Your task to perform on an android device: What's the weather today? Image 0: 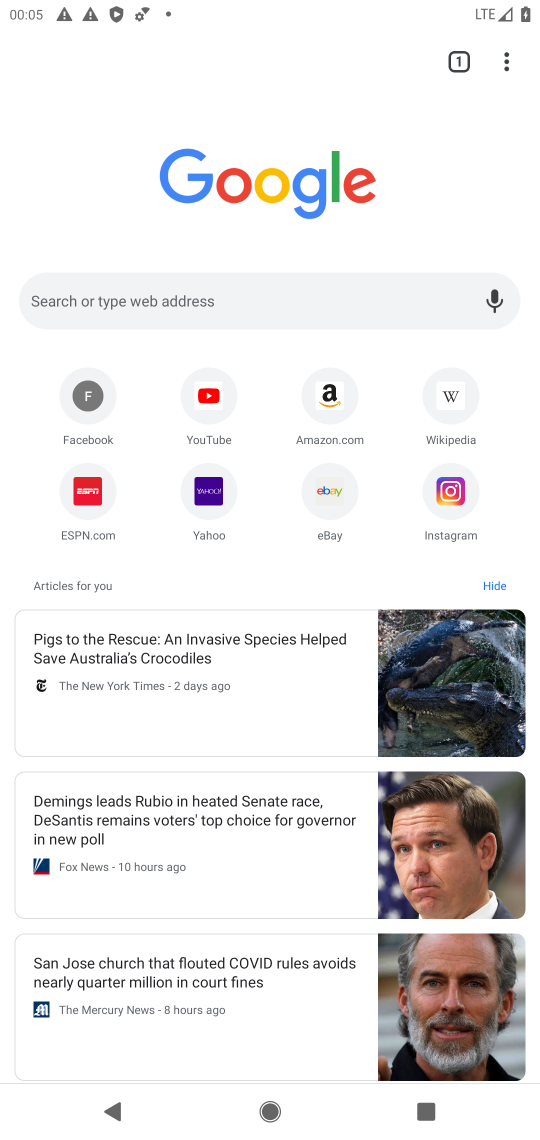
Step 0: press home button
Your task to perform on an android device: What's the weather today? Image 1: 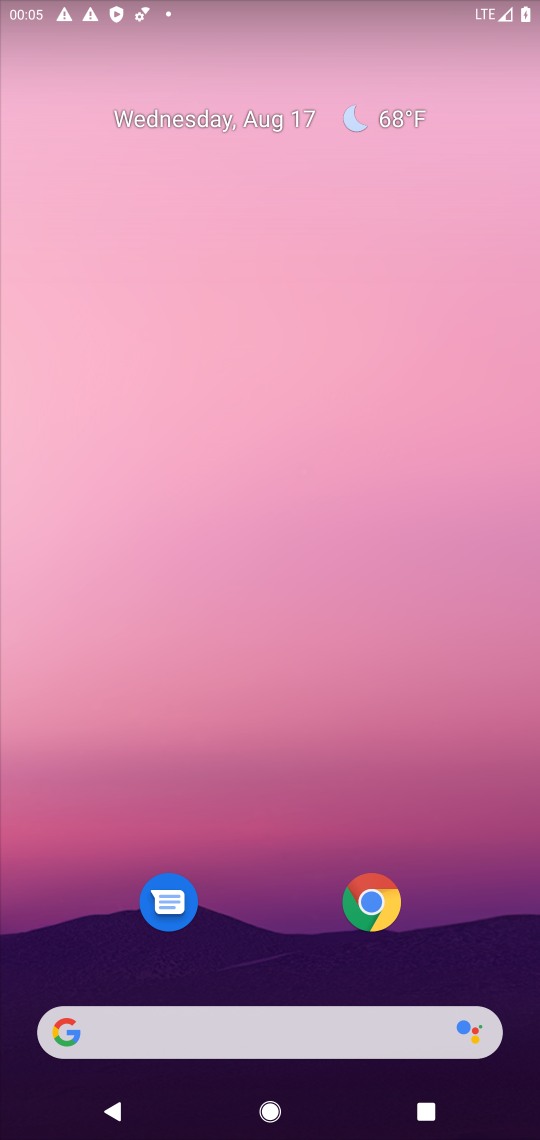
Step 1: click (253, 1028)
Your task to perform on an android device: What's the weather today? Image 2: 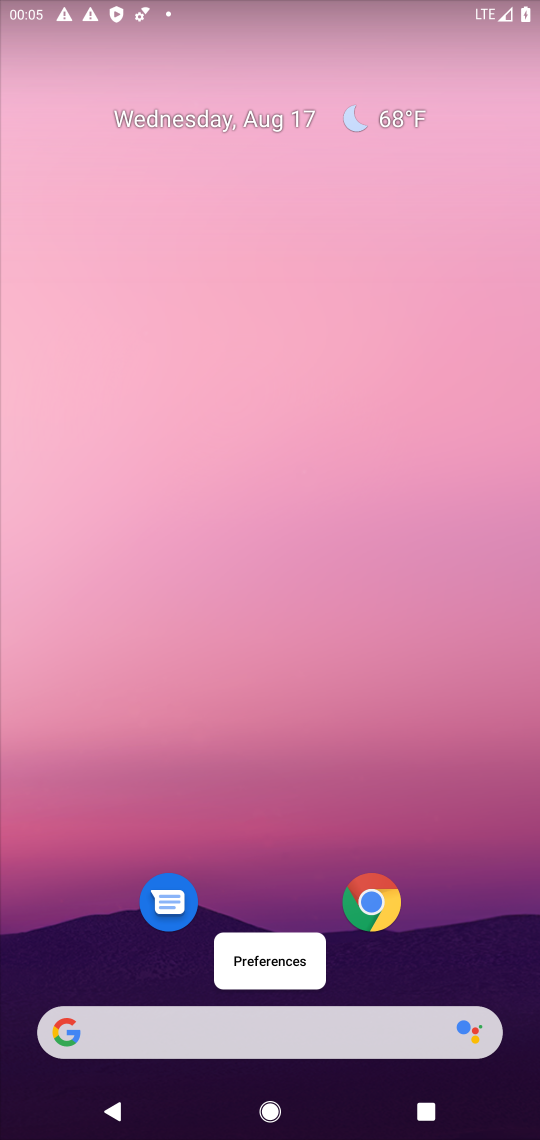
Step 2: click (243, 1027)
Your task to perform on an android device: What's the weather today? Image 3: 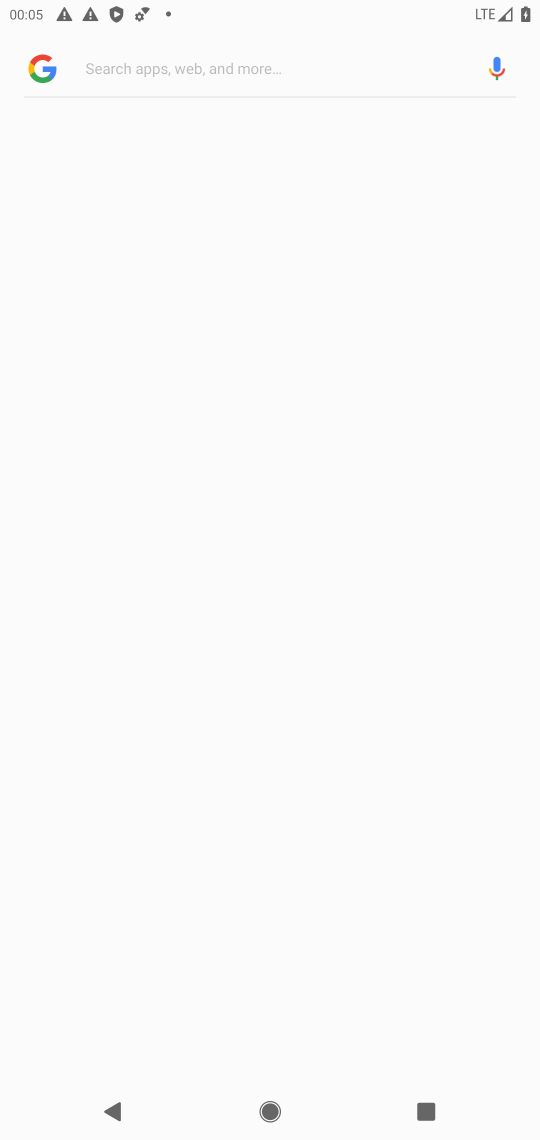
Step 3: click (243, 1027)
Your task to perform on an android device: What's the weather today? Image 4: 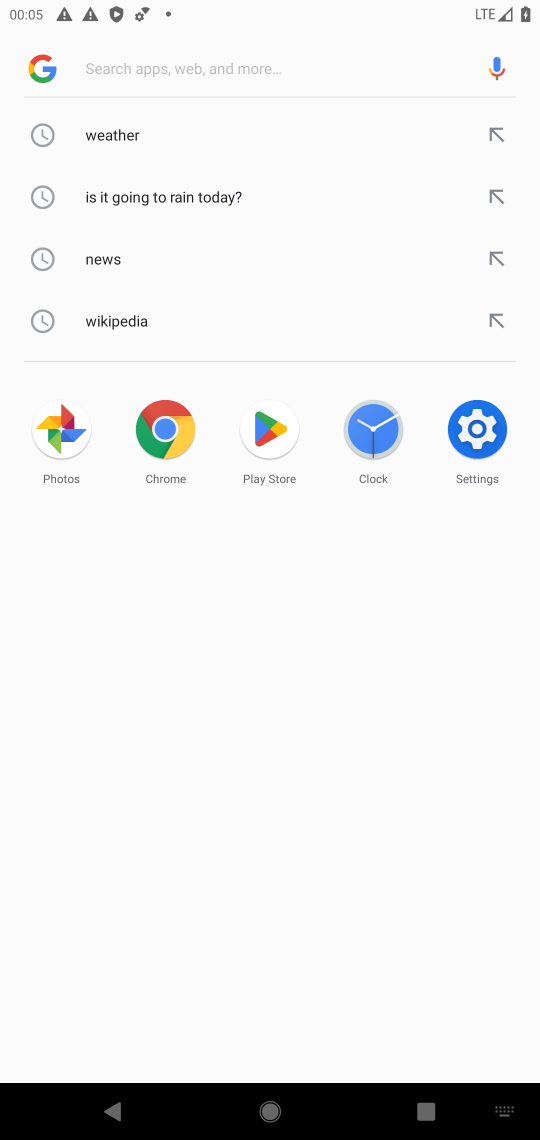
Step 4: click (128, 119)
Your task to perform on an android device: What's the weather today? Image 5: 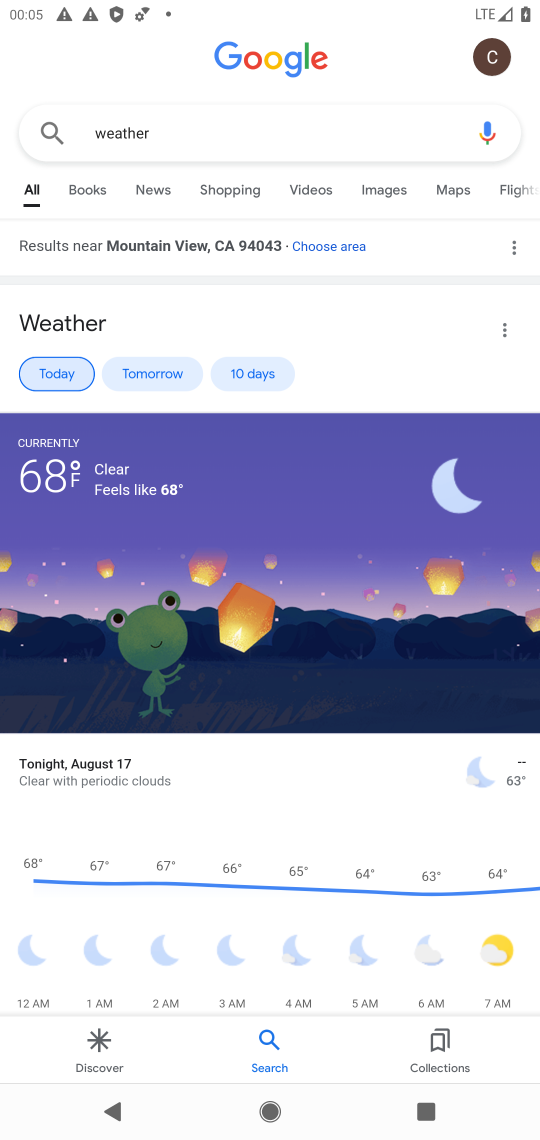
Step 5: task complete